Your task to perform on an android device: Open Amazon Image 0: 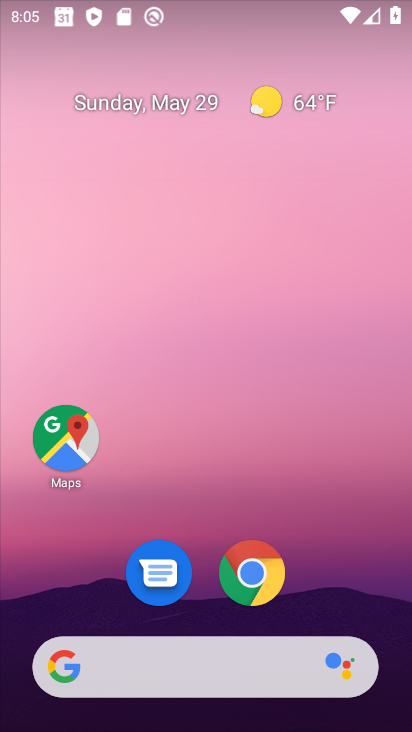
Step 0: click (260, 570)
Your task to perform on an android device: Open Amazon Image 1: 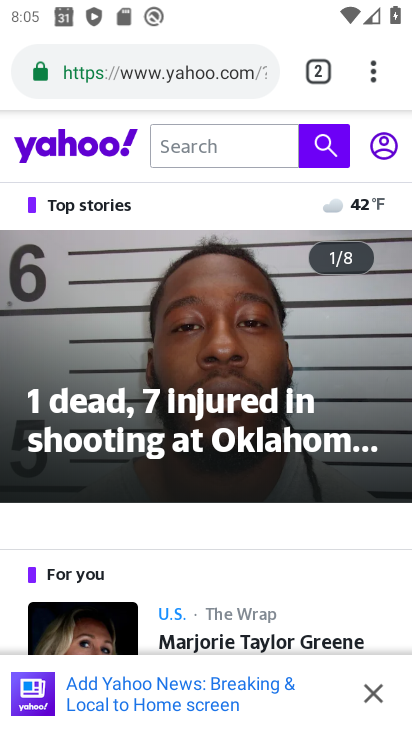
Step 1: drag from (368, 68) to (367, 132)
Your task to perform on an android device: Open Amazon Image 2: 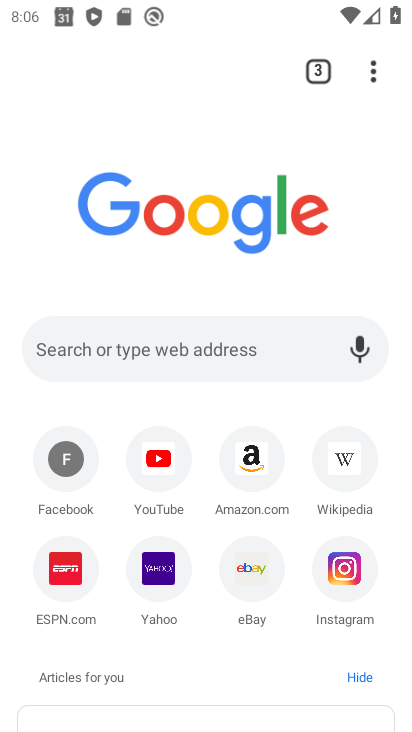
Step 2: click (258, 482)
Your task to perform on an android device: Open Amazon Image 3: 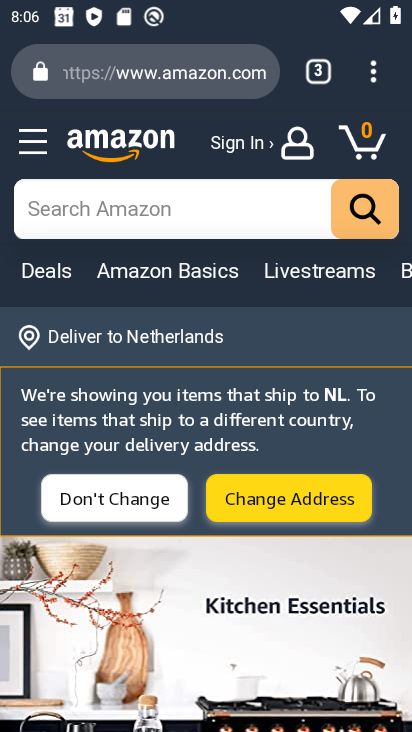
Step 3: task complete